Your task to perform on an android device: Go to display settings Image 0: 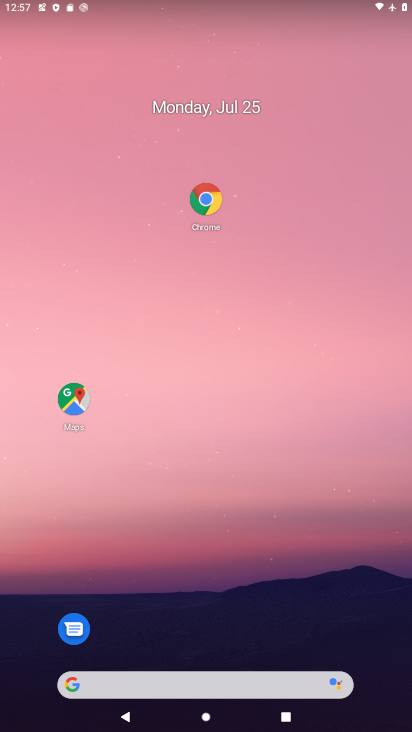
Step 0: drag from (343, 638) to (404, 187)
Your task to perform on an android device: Go to display settings Image 1: 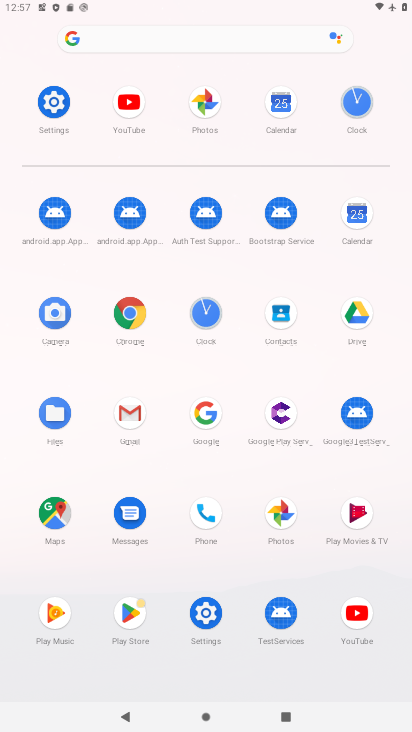
Step 1: click (271, 138)
Your task to perform on an android device: Go to display settings Image 2: 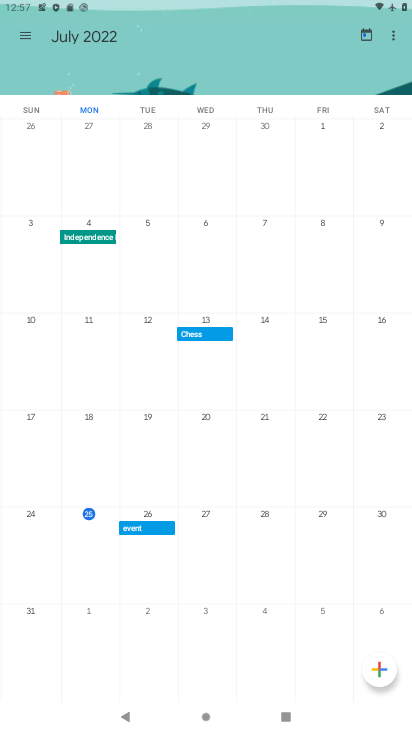
Step 2: task complete